Your task to perform on an android device: Search for "apple airpods" on bestbuy.com, select the first entry, add it to the cart, then select checkout. Image 0: 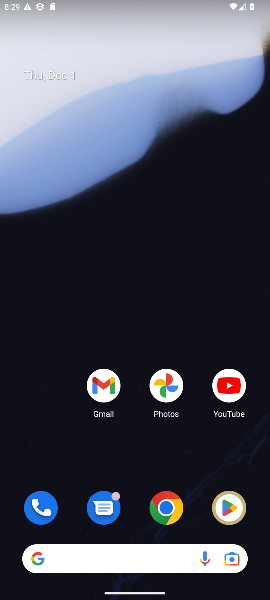
Step 0: click (162, 499)
Your task to perform on an android device: Search for "apple airpods" on bestbuy.com, select the first entry, add it to the cart, then select checkout. Image 1: 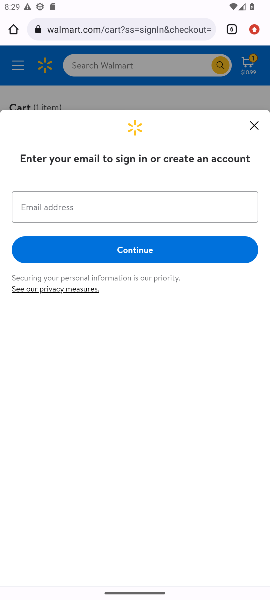
Step 1: click (229, 28)
Your task to perform on an android device: Search for "apple airpods" on bestbuy.com, select the first entry, add it to the cart, then select checkout. Image 2: 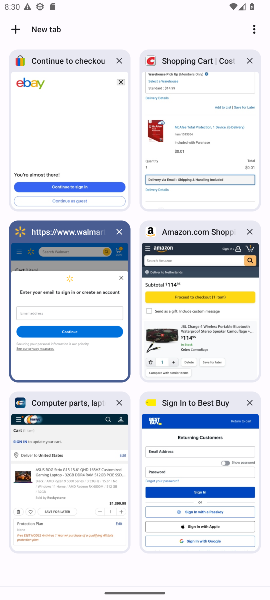
Step 2: click (184, 494)
Your task to perform on an android device: Search for "apple airpods" on bestbuy.com, select the first entry, add it to the cart, then select checkout. Image 3: 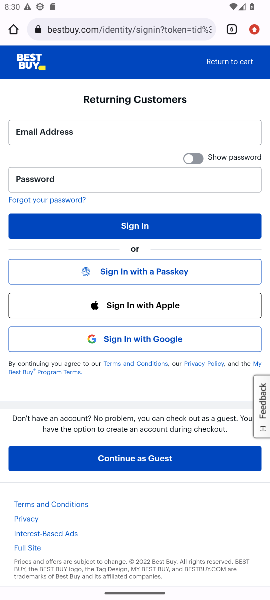
Step 3: press back button
Your task to perform on an android device: Search for "apple airpods" on bestbuy.com, select the first entry, add it to the cart, then select checkout. Image 4: 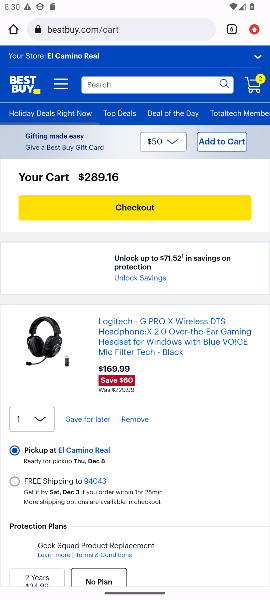
Step 4: click (95, 88)
Your task to perform on an android device: Search for "apple airpods" on bestbuy.com, select the first entry, add it to the cart, then select checkout. Image 5: 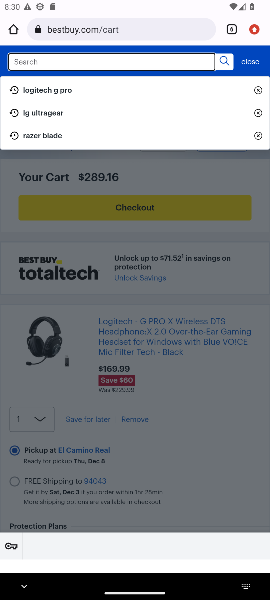
Step 5: type "apple airpods"
Your task to perform on an android device: Search for "apple airpods" on bestbuy.com, select the first entry, add it to the cart, then select checkout. Image 6: 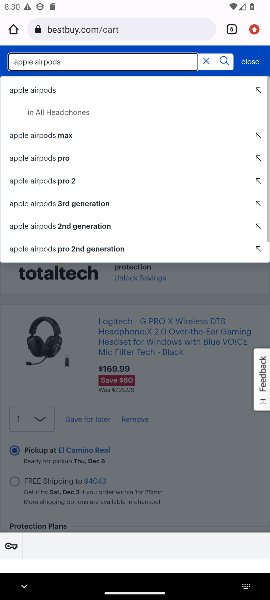
Step 6: click (228, 62)
Your task to perform on an android device: Search for "apple airpods" on bestbuy.com, select the first entry, add it to the cart, then select checkout. Image 7: 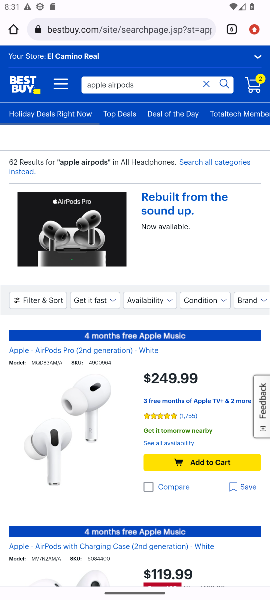
Step 7: click (93, 394)
Your task to perform on an android device: Search for "apple airpods" on bestbuy.com, select the first entry, add it to the cart, then select checkout. Image 8: 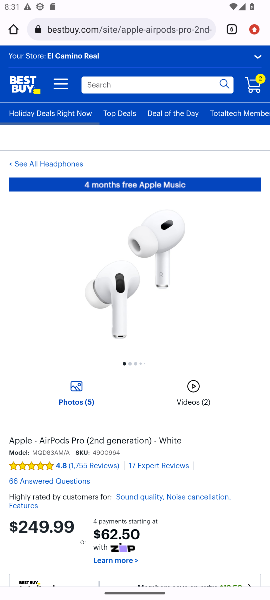
Step 8: drag from (193, 531) to (186, 111)
Your task to perform on an android device: Search for "apple airpods" on bestbuy.com, select the first entry, add it to the cart, then select checkout. Image 9: 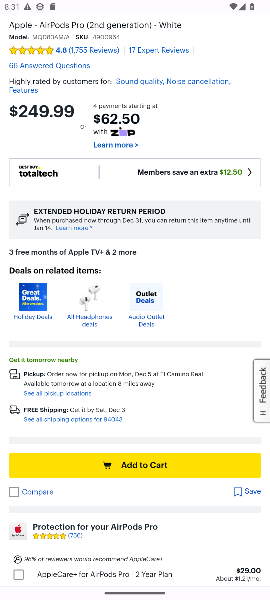
Step 9: click (112, 466)
Your task to perform on an android device: Search for "apple airpods" on bestbuy.com, select the first entry, add it to the cart, then select checkout. Image 10: 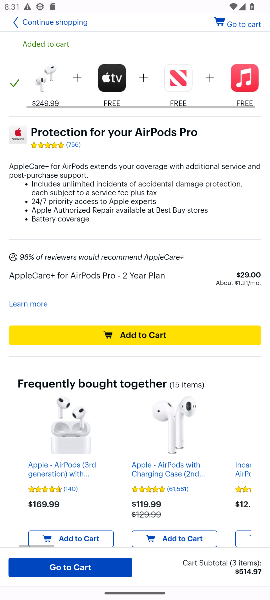
Step 10: click (79, 568)
Your task to perform on an android device: Search for "apple airpods" on bestbuy.com, select the first entry, add it to the cart, then select checkout. Image 11: 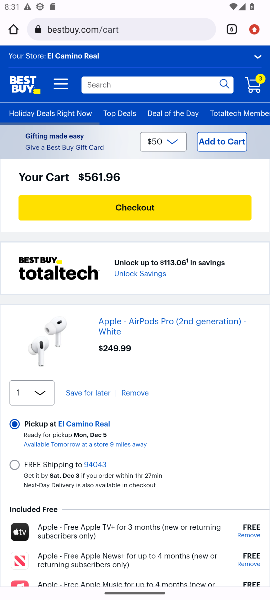
Step 11: click (138, 217)
Your task to perform on an android device: Search for "apple airpods" on bestbuy.com, select the first entry, add it to the cart, then select checkout. Image 12: 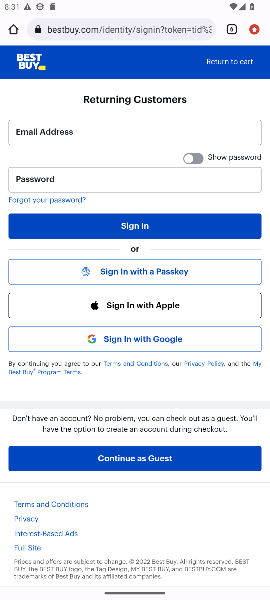
Step 12: task complete